Your task to perform on an android device: turn on the 12-hour format for clock Image 0: 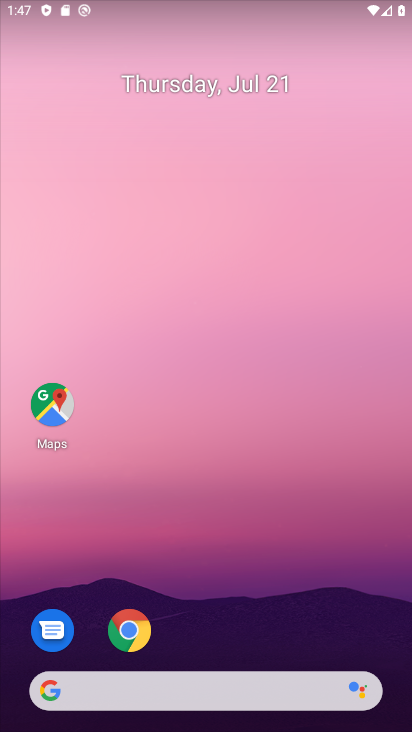
Step 0: drag from (206, 643) to (213, 21)
Your task to perform on an android device: turn on the 12-hour format for clock Image 1: 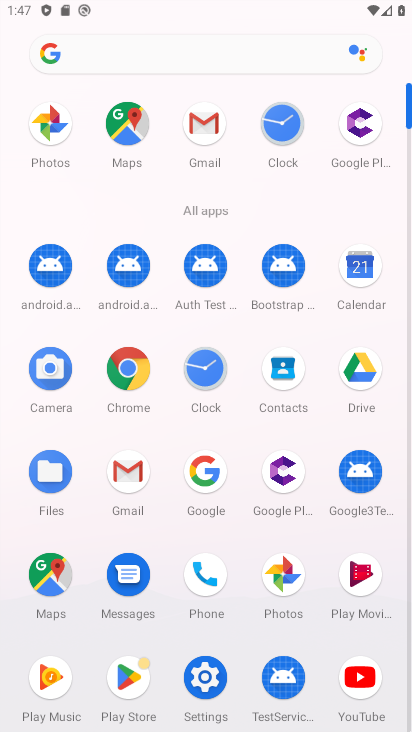
Step 1: click (304, 115)
Your task to perform on an android device: turn on the 12-hour format for clock Image 2: 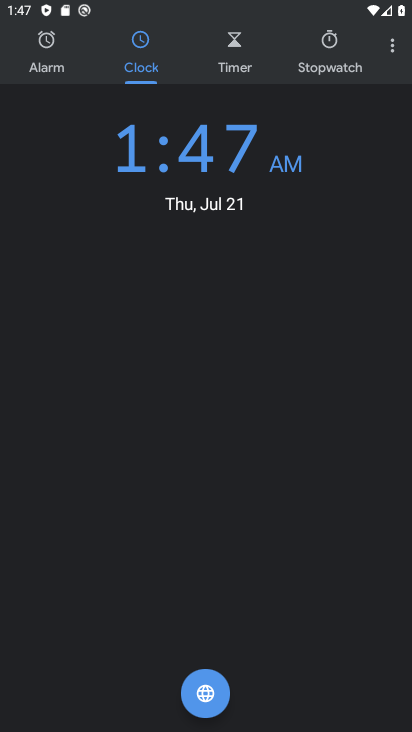
Step 2: click (400, 39)
Your task to perform on an android device: turn on the 12-hour format for clock Image 3: 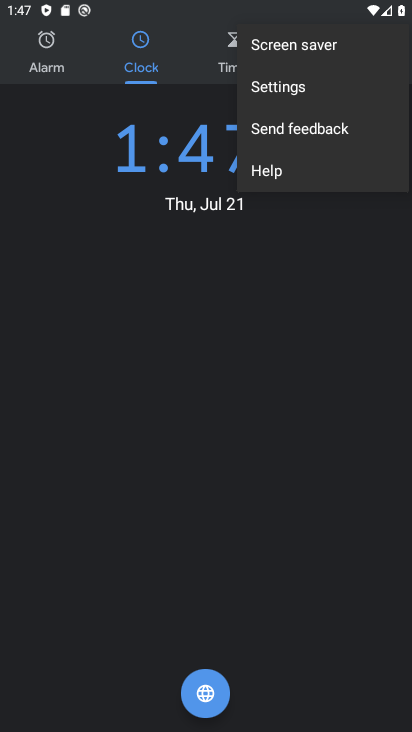
Step 3: click (276, 98)
Your task to perform on an android device: turn on the 12-hour format for clock Image 4: 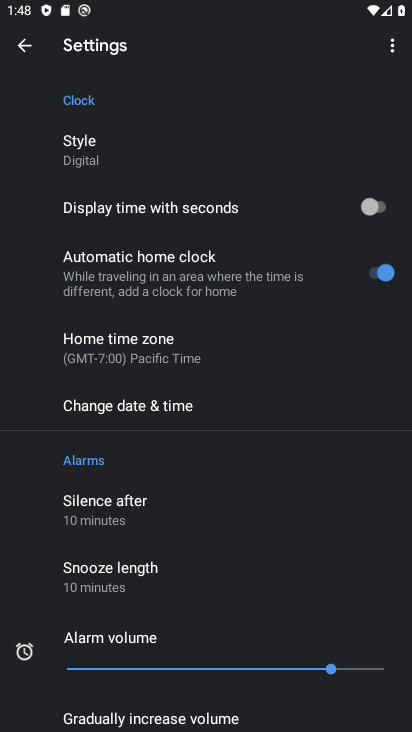
Step 4: task complete